Your task to perform on an android device: What's the weather going to be this weekend? Image 0: 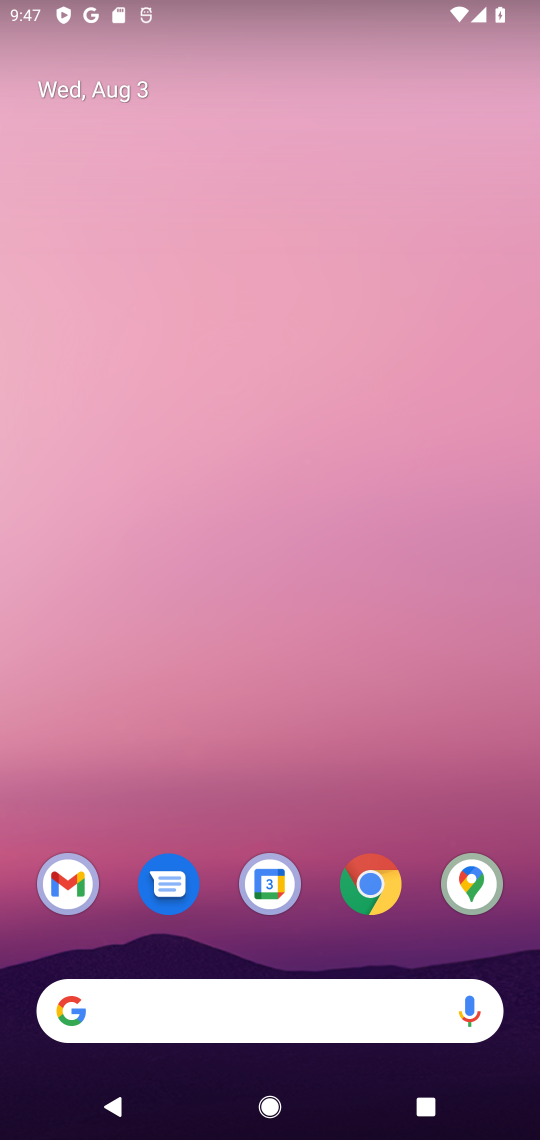
Step 0: press home button
Your task to perform on an android device: What's the weather going to be this weekend? Image 1: 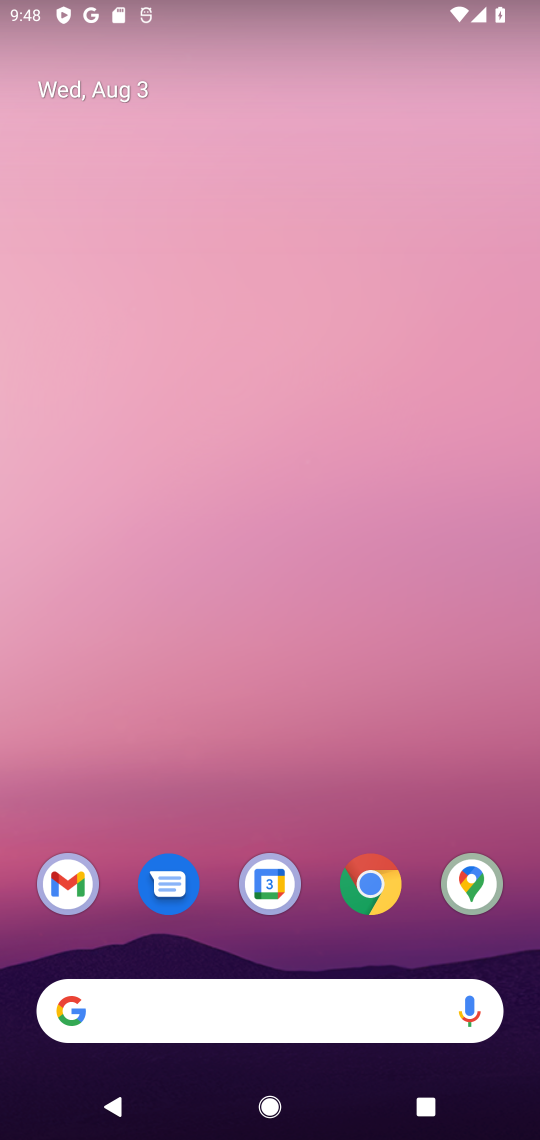
Step 1: click (66, 1008)
Your task to perform on an android device: What's the weather going to be this weekend? Image 2: 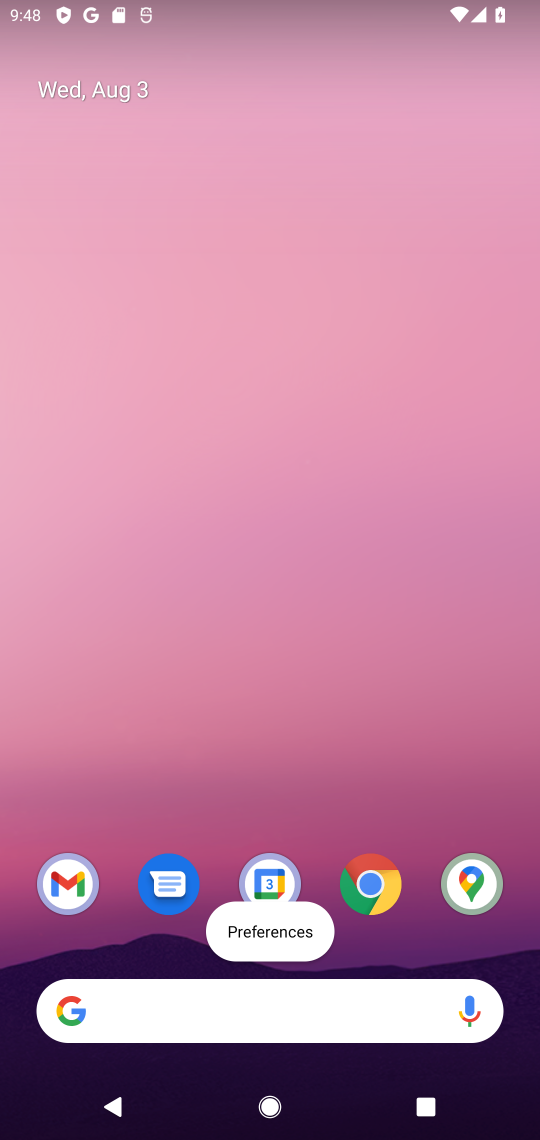
Step 2: click (66, 1008)
Your task to perform on an android device: What's the weather going to be this weekend? Image 3: 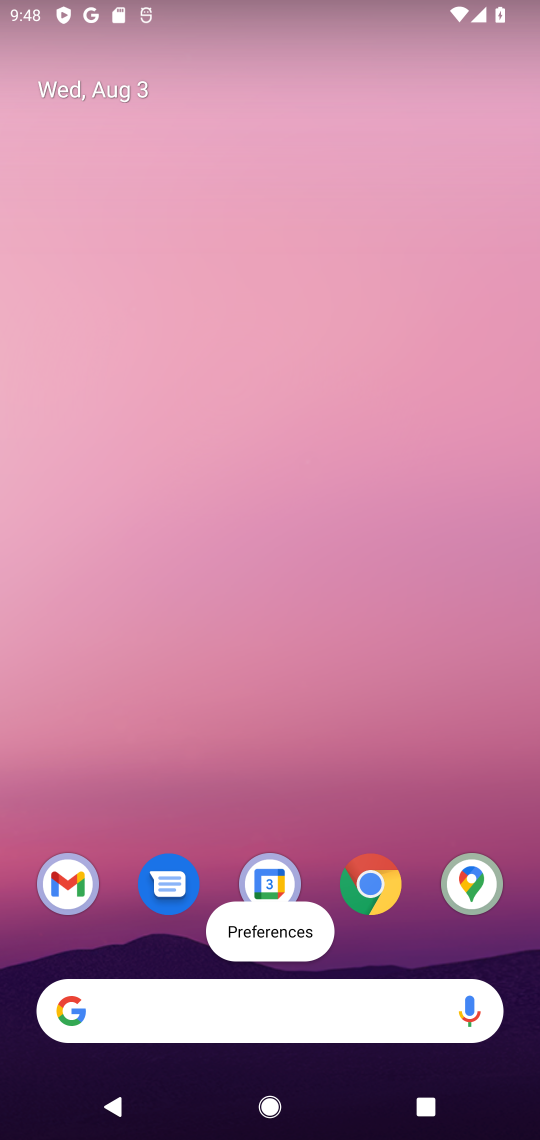
Step 3: click (73, 1022)
Your task to perform on an android device: What's the weather going to be this weekend? Image 4: 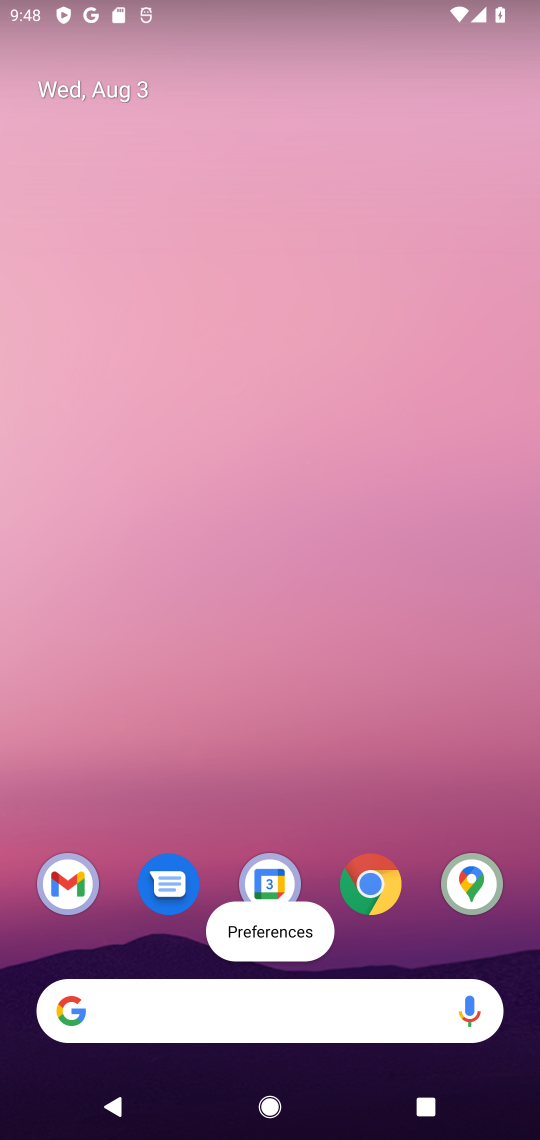
Step 4: click (70, 1017)
Your task to perform on an android device: What's the weather going to be this weekend? Image 5: 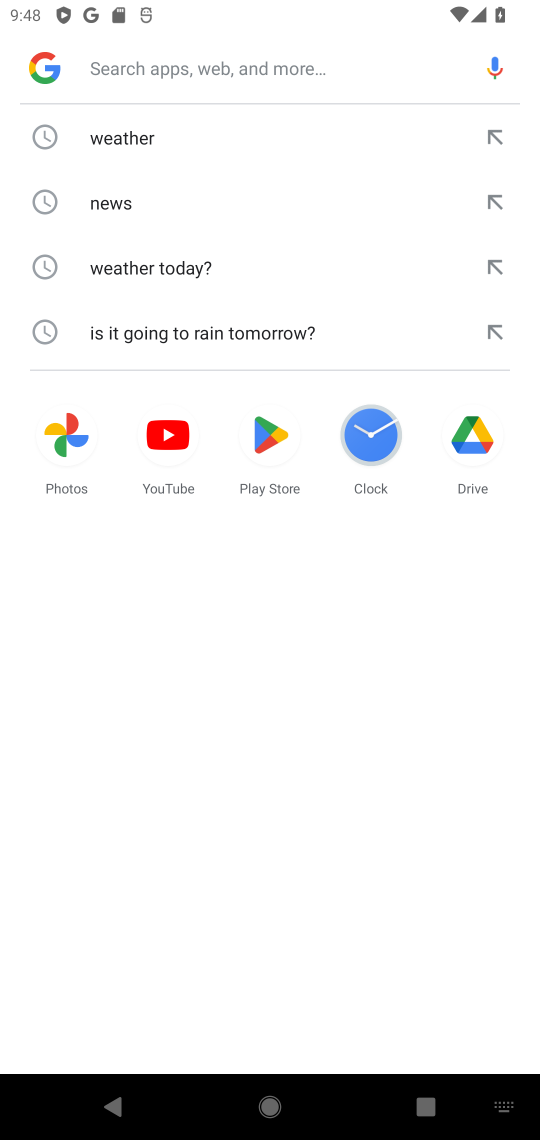
Step 5: type " weather going to be this weekend?"
Your task to perform on an android device: What's the weather going to be this weekend? Image 6: 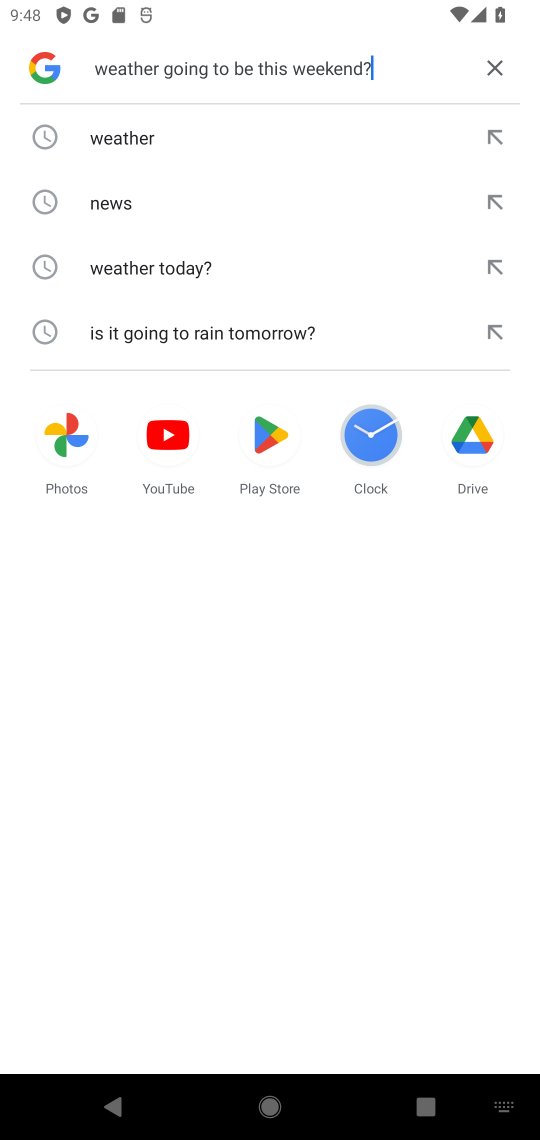
Step 6: press enter
Your task to perform on an android device: What's the weather going to be this weekend? Image 7: 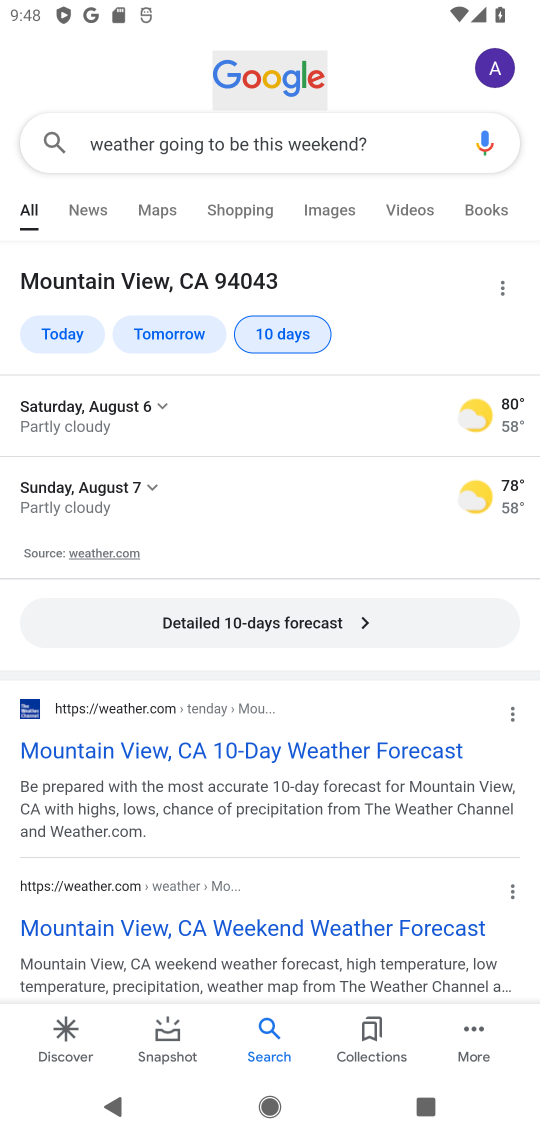
Step 7: task complete